Your task to perform on an android device: turn on location history Image 0: 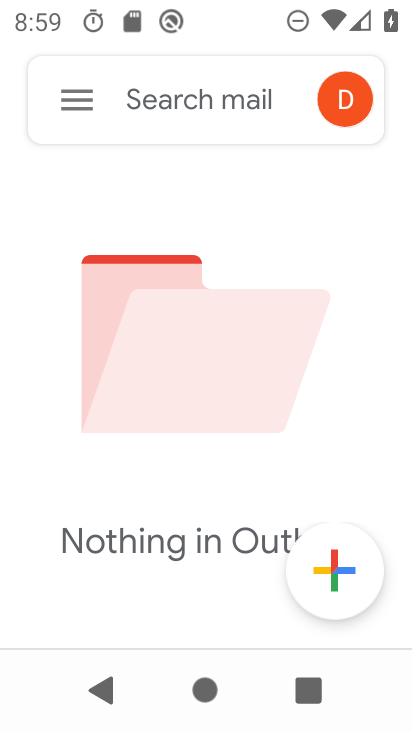
Step 0: click (69, 102)
Your task to perform on an android device: turn on location history Image 1: 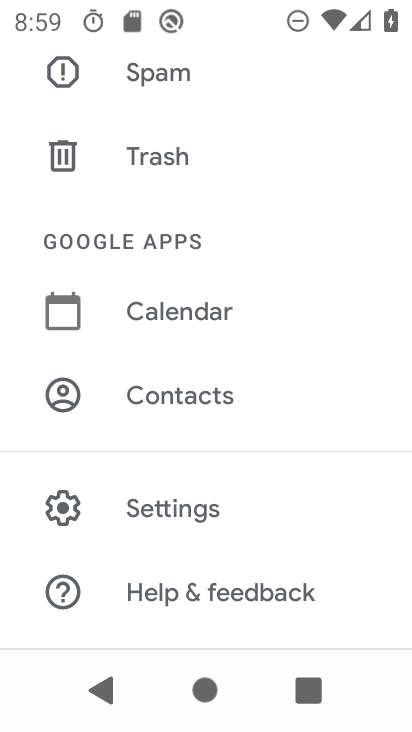
Step 1: press home button
Your task to perform on an android device: turn on location history Image 2: 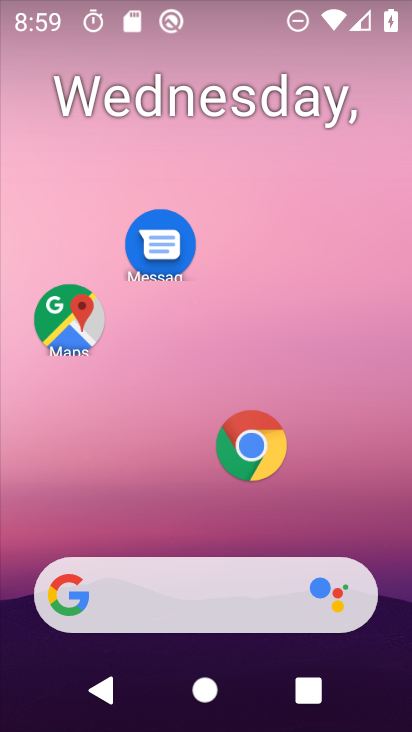
Step 2: drag from (193, 538) to (254, 69)
Your task to perform on an android device: turn on location history Image 3: 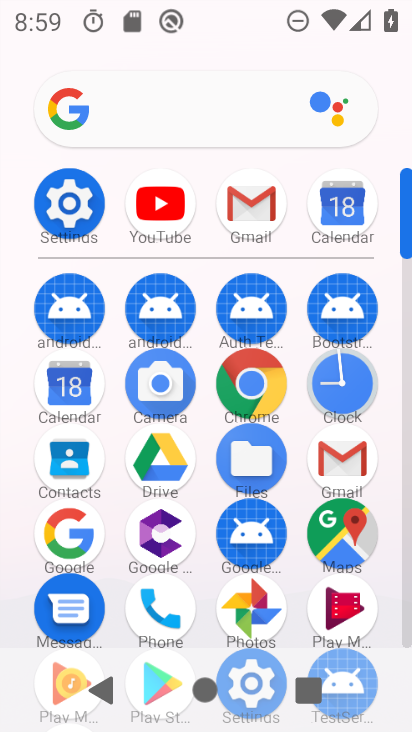
Step 3: click (69, 199)
Your task to perform on an android device: turn on location history Image 4: 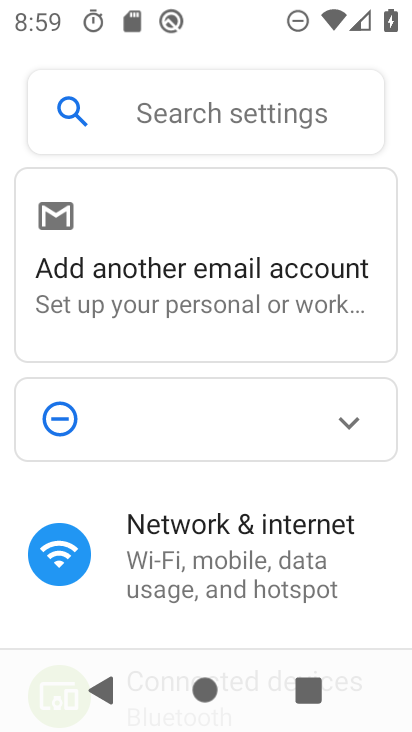
Step 4: drag from (232, 610) to (240, 126)
Your task to perform on an android device: turn on location history Image 5: 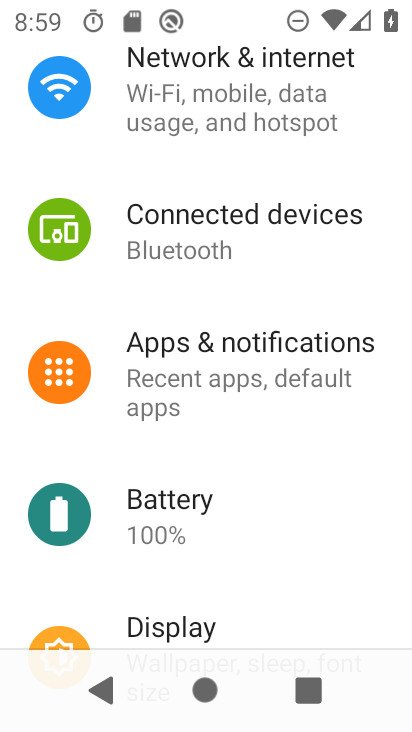
Step 5: drag from (213, 589) to (232, 147)
Your task to perform on an android device: turn on location history Image 6: 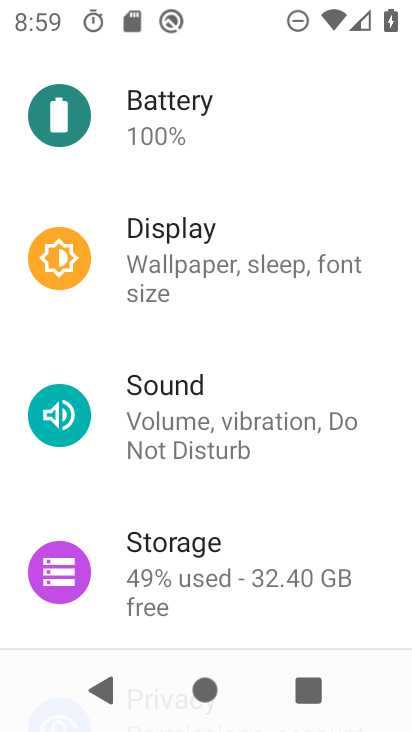
Step 6: drag from (239, 563) to (240, 113)
Your task to perform on an android device: turn on location history Image 7: 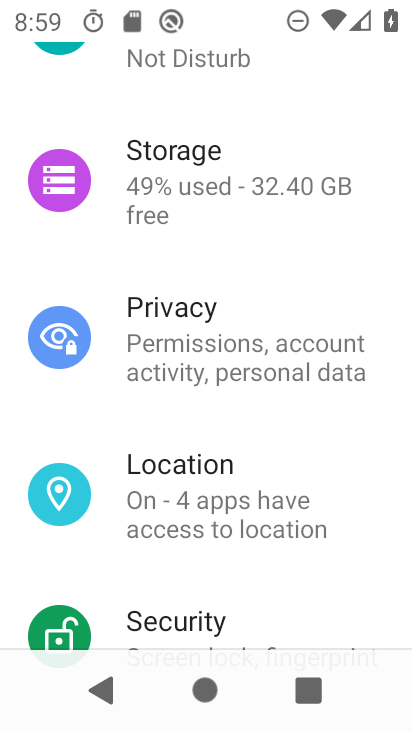
Step 7: click (239, 473)
Your task to perform on an android device: turn on location history Image 8: 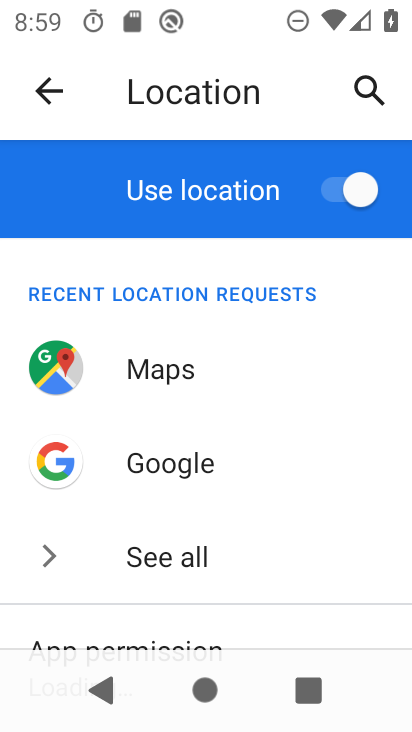
Step 8: drag from (232, 607) to (271, 129)
Your task to perform on an android device: turn on location history Image 9: 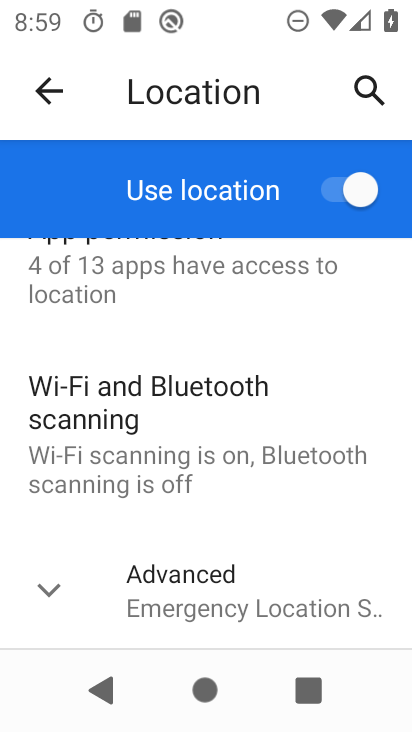
Step 9: click (48, 590)
Your task to perform on an android device: turn on location history Image 10: 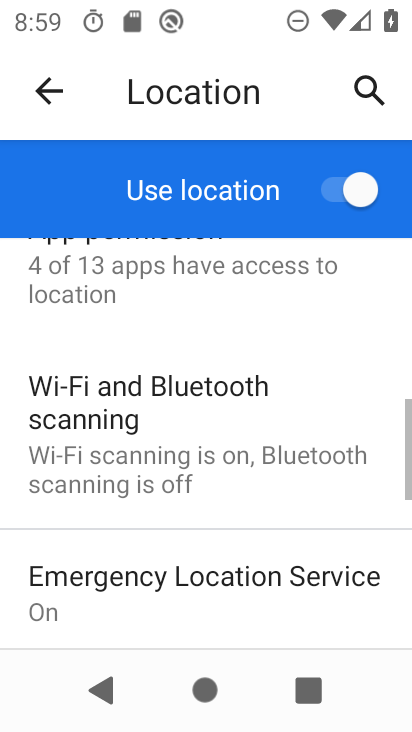
Step 10: drag from (212, 598) to (232, 143)
Your task to perform on an android device: turn on location history Image 11: 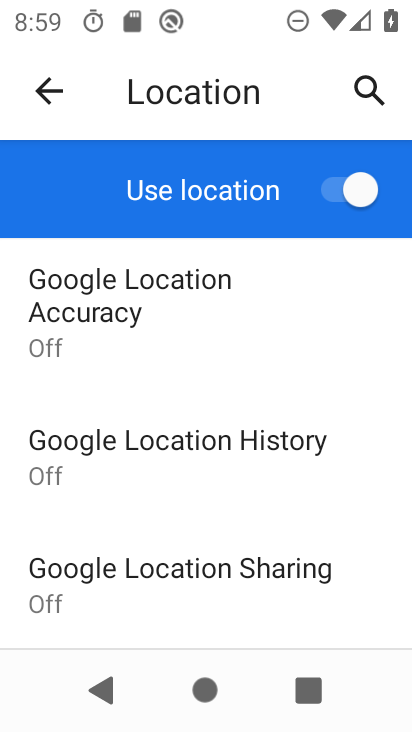
Step 11: click (91, 460)
Your task to perform on an android device: turn on location history Image 12: 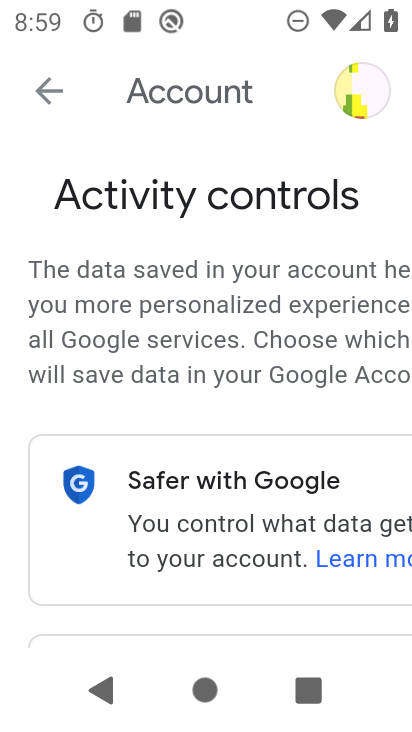
Step 12: task complete